Your task to perform on an android device: change the upload size in google photos Image 0: 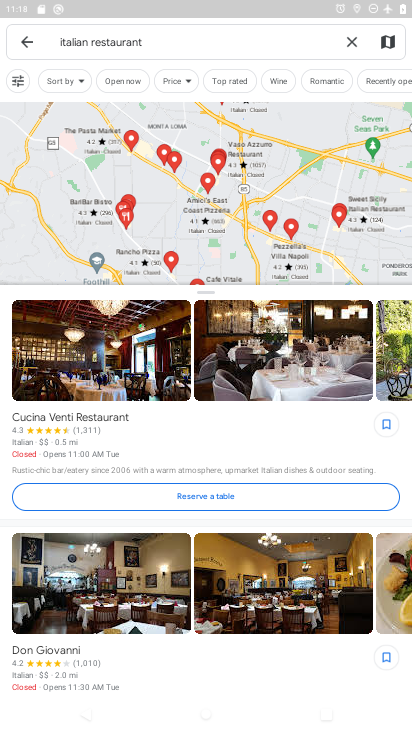
Step 0: press home button
Your task to perform on an android device: change the upload size in google photos Image 1: 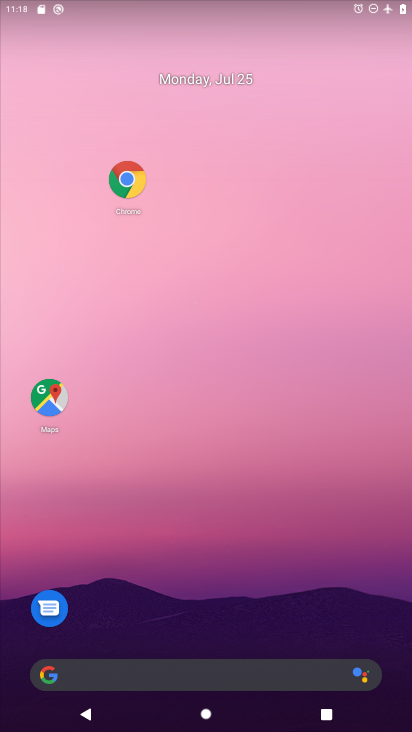
Step 1: drag from (154, 676) to (178, 6)
Your task to perform on an android device: change the upload size in google photos Image 2: 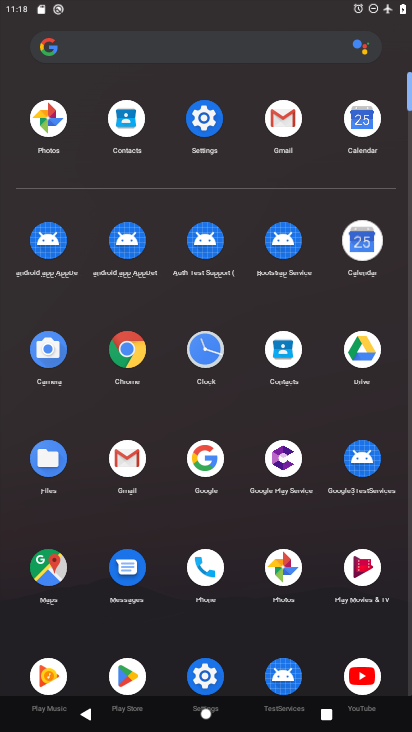
Step 2: click (295, 572)
Your task to perform on an android device: change the upload size in google photos Image 3: 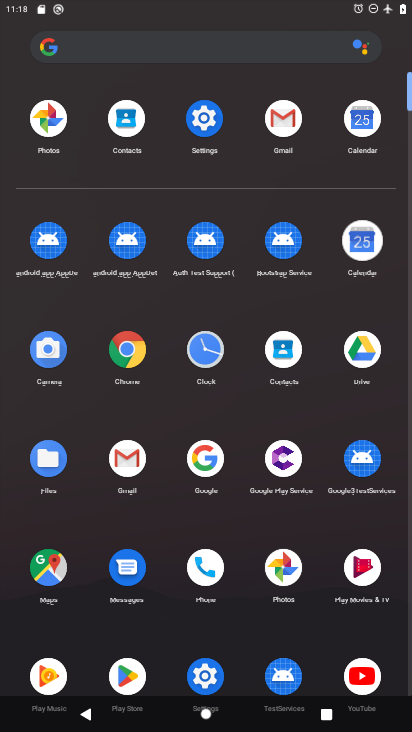
Step 3: click (295, 572)
Your task to perform on an android device: change the upload size in google photos Image 4: 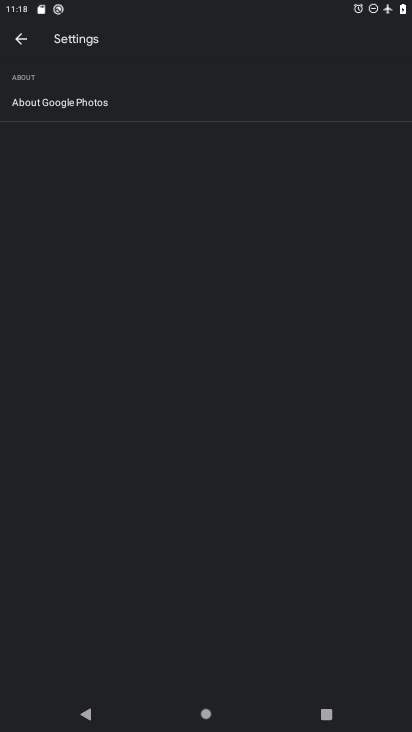
Step 4: click (24, 39)
Your task to perform on an android device: change the upload size in google photos Image 5: 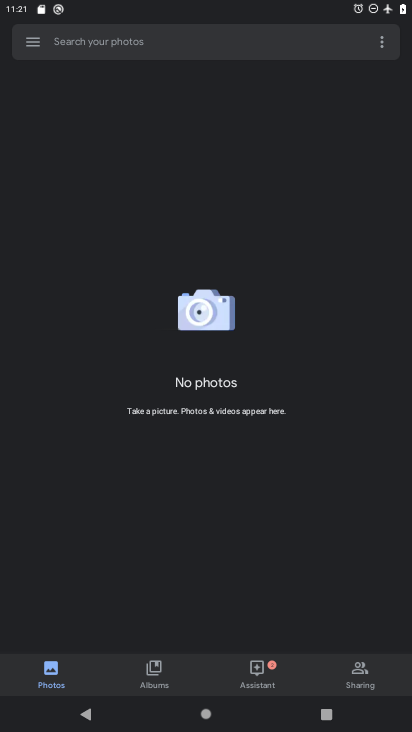
Step 5: click (32, 48)
Your task to perform on an android device: change the upload size in google photos Image 6: 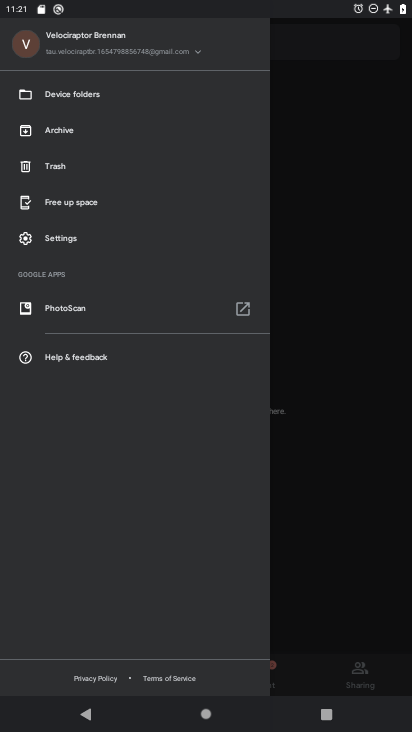
Step 6: click (55, 243)
Your task to perform on an android device: change the upload size in google photos Image 7: 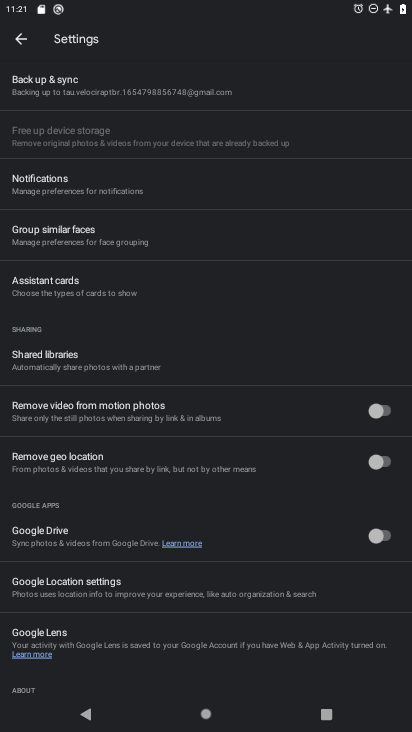
Step 7: click (134, 80)
Your task to perform on an android device: change the upload size in google photos Image 8: 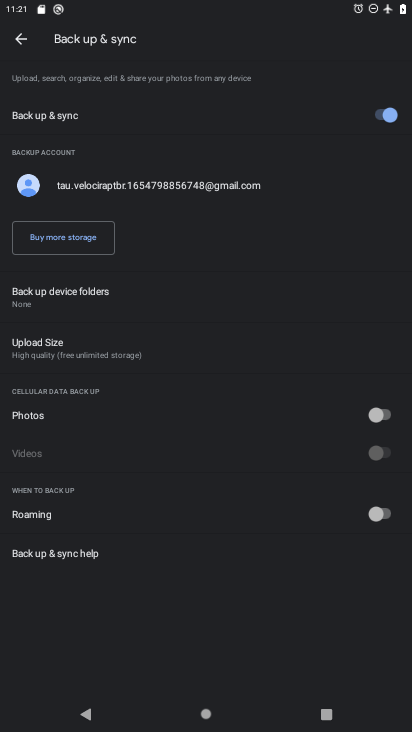
Step 8: click (82, 348)
Your task to perform on an android device: change the upload size in google photos Image 9: 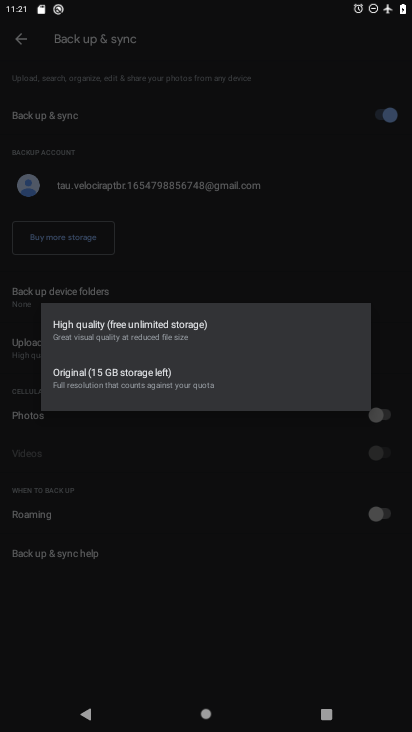
Step 9: click (133, 386)
Your task to perform on an android device: change the upload size in google photos Image 10: 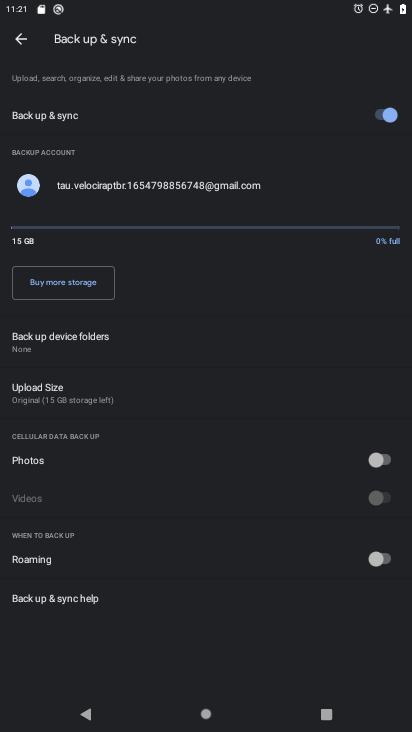
Step 10: task complete